Your task to perform on an android device: What is the news today? Image 0: 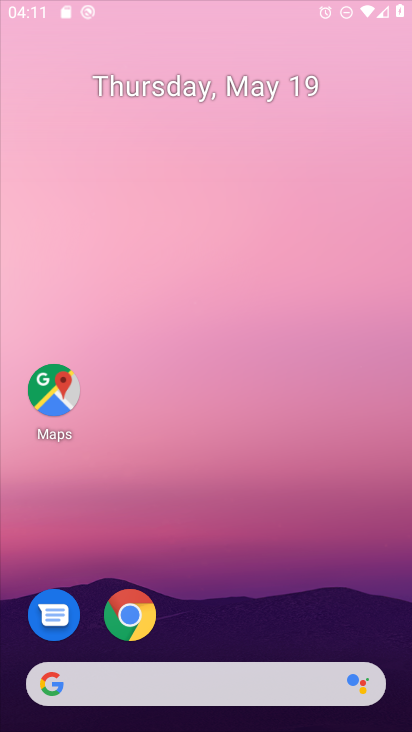
Step 0: drag from (255, 627) to (263, 42)
Your task to perform on an android device: What is the news today? Image 1: 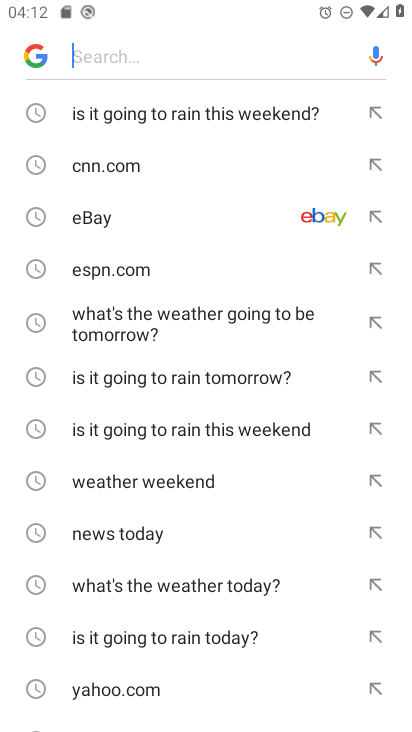
Step 1: type "What is the news today?"
Your task to perform on an android device: What is the news today? Image 2: 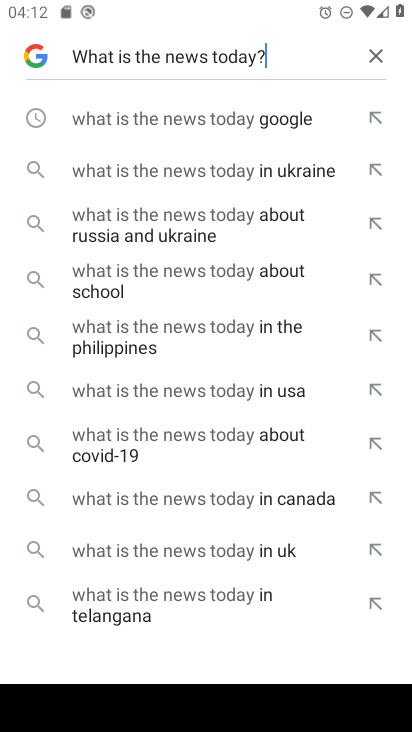
Step 2: click (262, 128)
Your task to perform on an android device: What is the news today? Image 3: 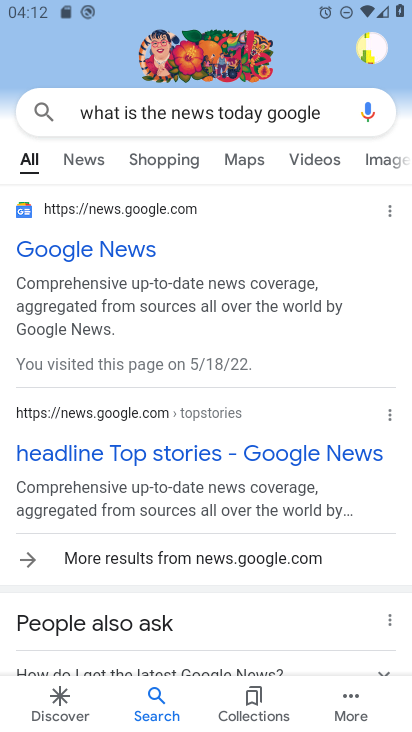
Step 3: click (127, 247)
Your task to perform on an android device: What is the news today? Image 4: 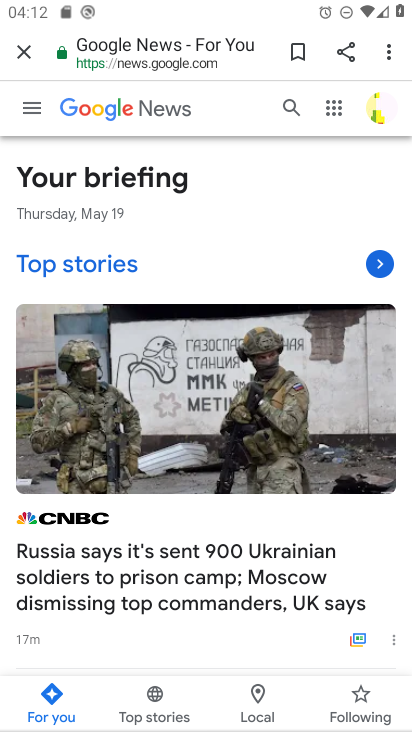
Step 4: task complete